Your task to perform on an android device: Open display settings Image 0: 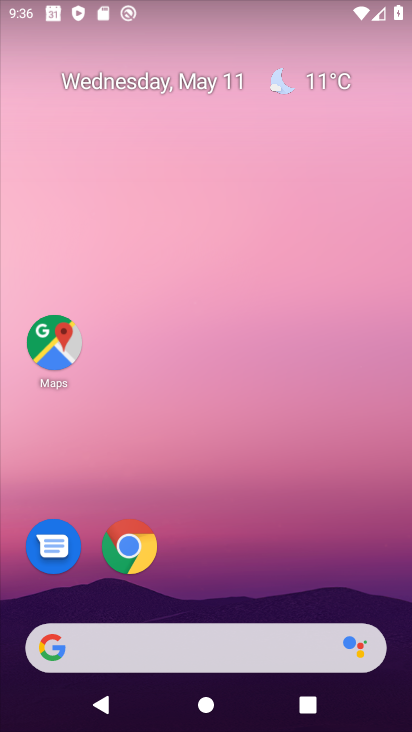
Step 0: drag from (135, 656) to (99, 213)
Your task to perform on an android device: Open display settings Image 1: 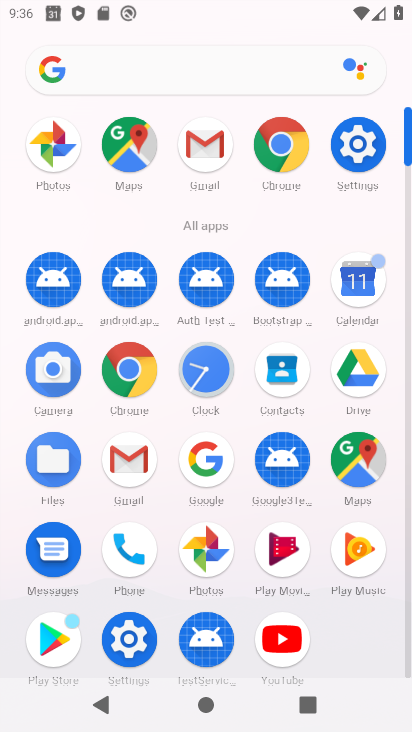
Step 1: click (364, 160)
Your task to perform on an android device: Open display settings Image 2: 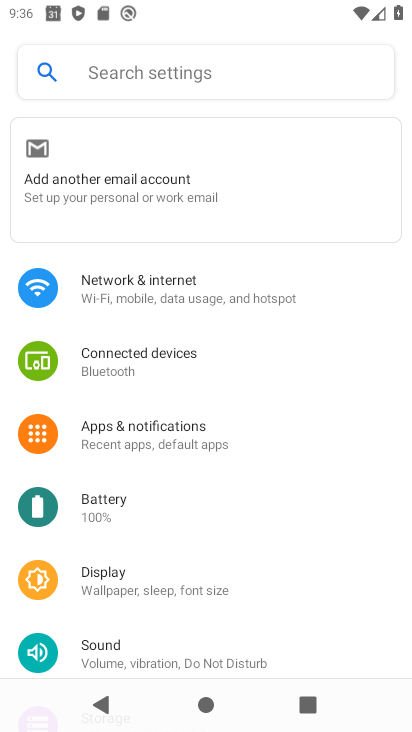
Step 2: click (118, 577)
Your task to perform on an android device: Open display settings Image 3: 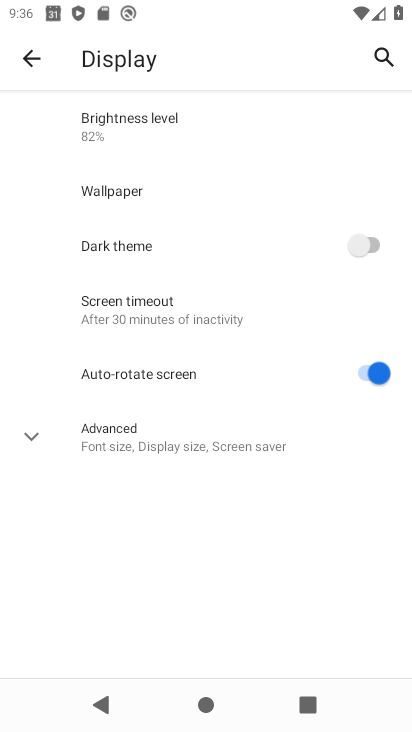
Step 3: task complete